Your task to perform on an android device: What's on my calendar today? Image 0: 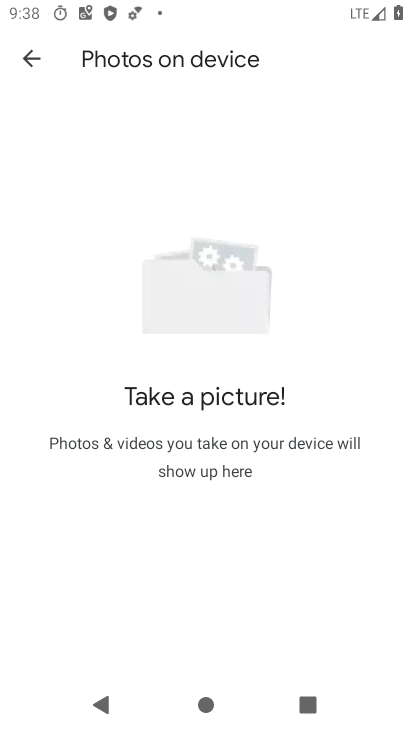
Step 0: drag from (199, 600) to (323, 87)
Your task to perform on an android device: What's on my calendar today? Image 1: 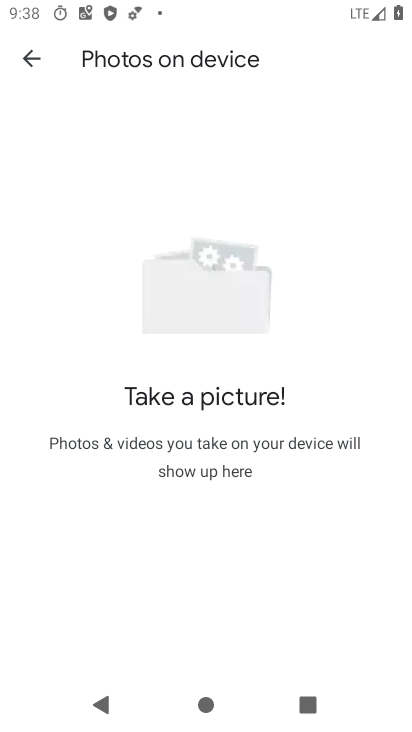
Step 1: press home button
Your task to perform on an android device: What's on my calendar today? Image 2: 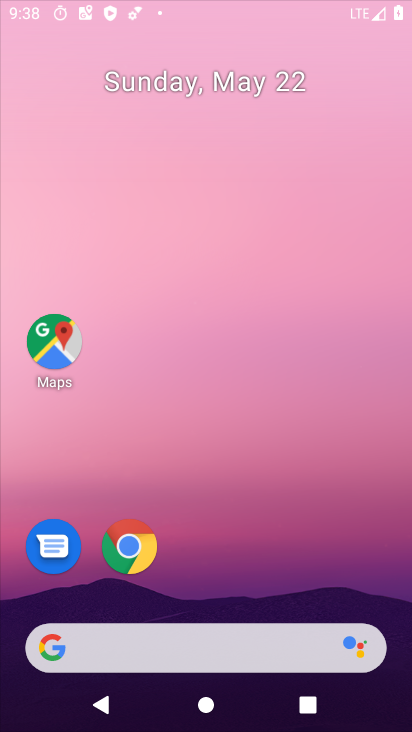
Step 2: drag from (205, 656) to (293, 138)
Your task to perform on an android device: What's on my calendar today? Image 3: 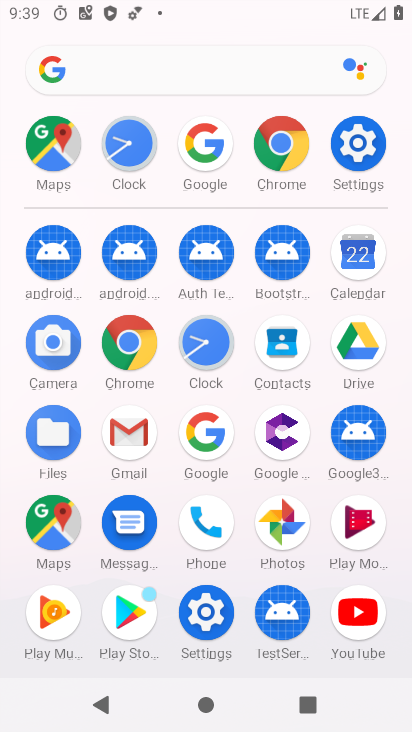
Step 3: click (345, 252)
Your task to perform on an android device: What's on my calendar today? Image 4: 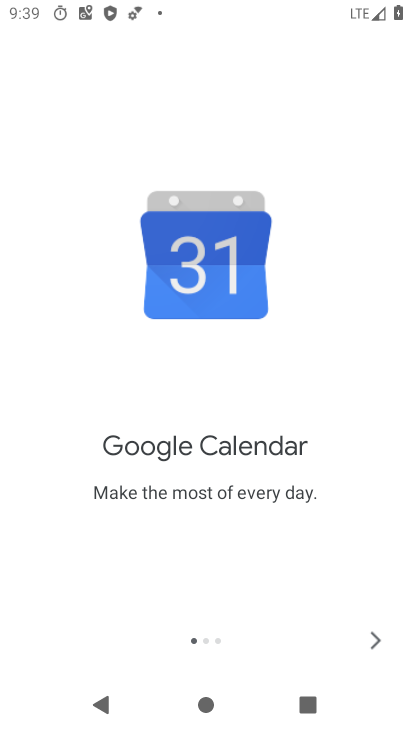
Step 4: click (368, 647)
Your task to perform on an android device: What's on my calendar today? Image 5: 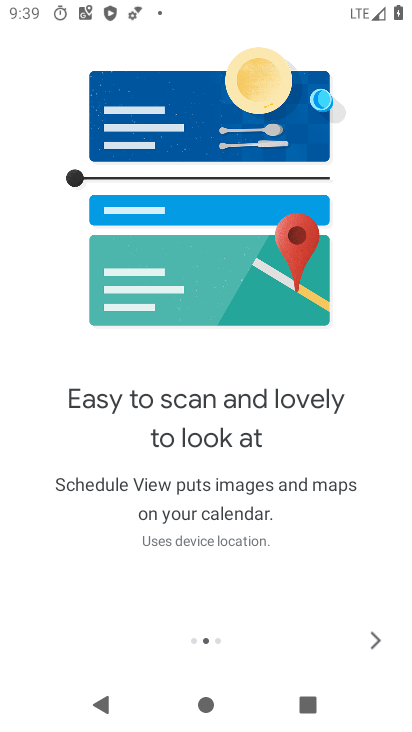
Step 5: click (375, 636)
Your task to perform on an android device: What's on my calendar today? Image 6: 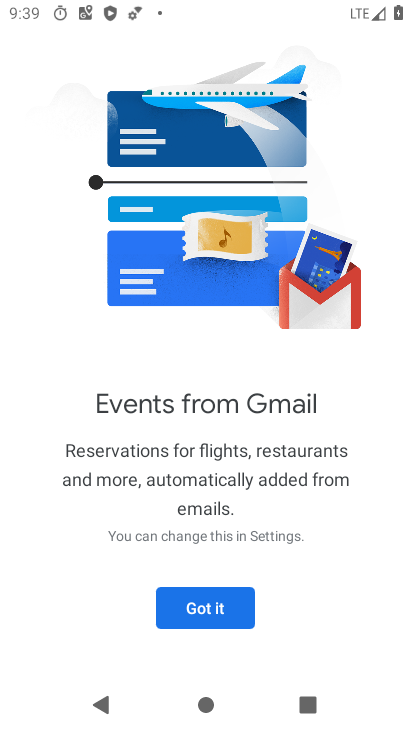
Step 6: click (220, 592)
Your task to perform on an android device: What's on my calendar today? Image 7: 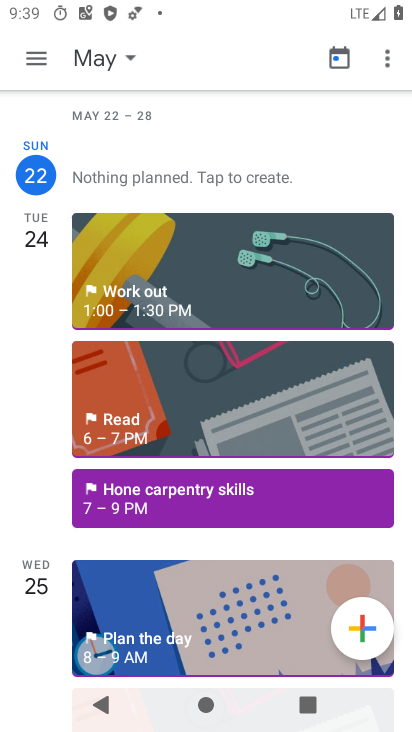
Step 7: click (132, 61)
Your task to perform on an android device: What's on my calendar today? Image 8: 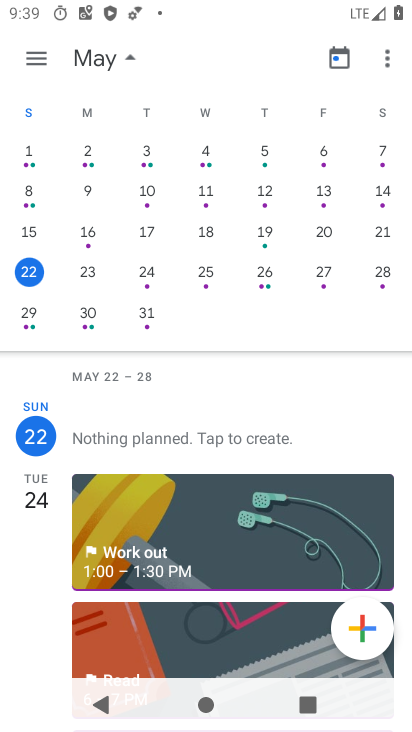
Step 8: click (85, 277)
Your task to perform on an android device: What's on my calendar today? Image 9: 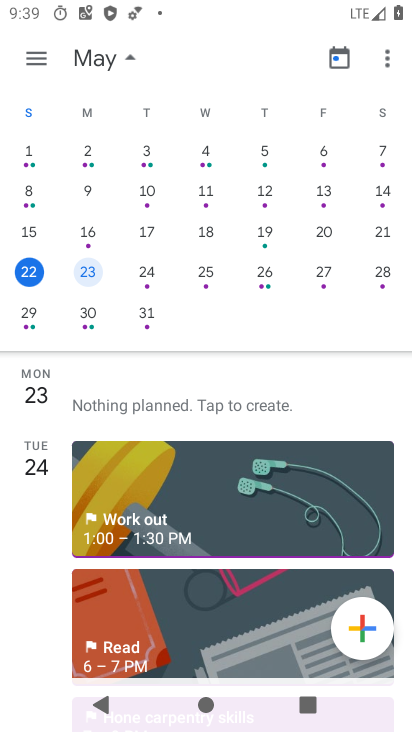
Step 9: task complete